Your task to perform on an android device: Search for sushi restaurants on Maps Image 0: 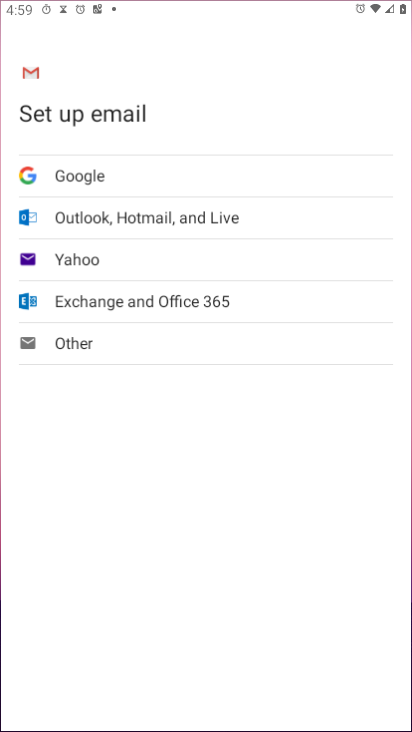
Step 0: press home button
Your task to perform on an android device: Search for sushi restaurants on Maps Image 1: 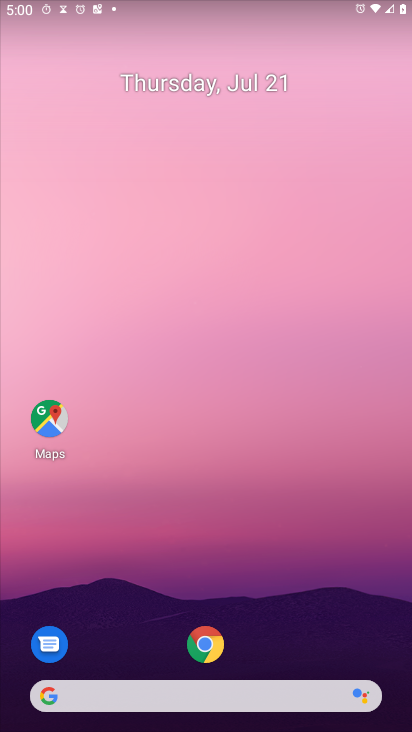
Step 1: click (36, 418)
Your task to perform on an android device: Search for sushi restaurants on Maps Image 2: 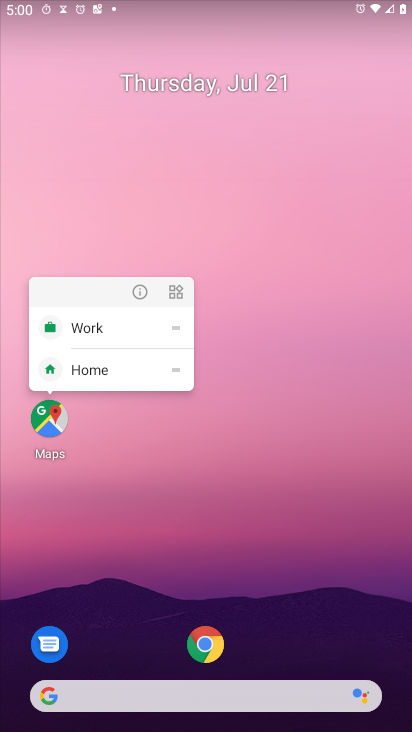
Step 2: click (41, 415)
Your task to perform on an android device: Search for sushi restaurants on Maps Image 3: 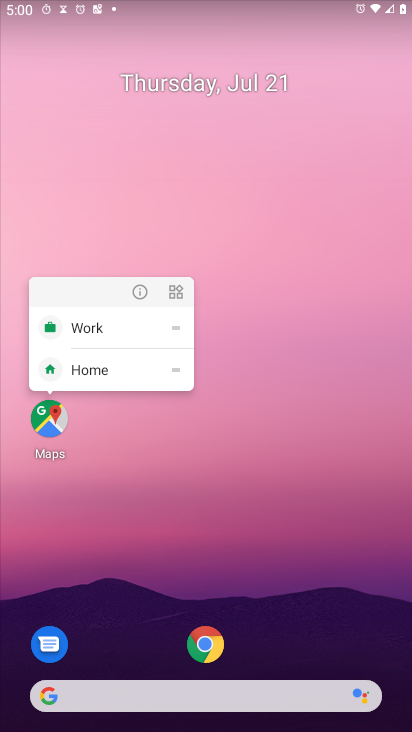
Step 3: click (44, 417)
Your task to perform on an android device: Search for sushi restaurants on Maps Image 4: 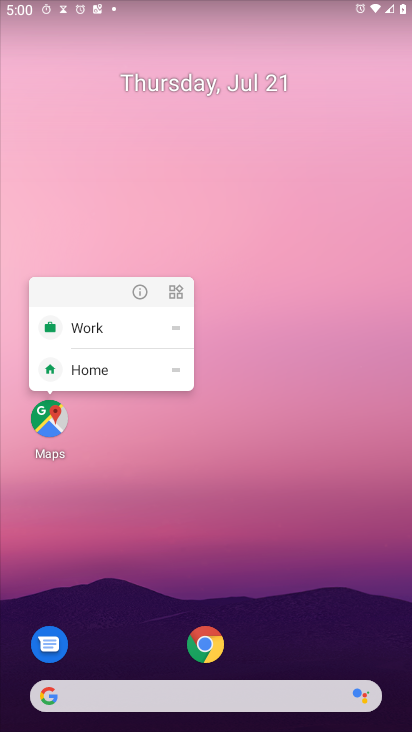
Step 4: click (44, 421)
Your task to perform on an android device: Search for sushi restaurants on Maps Image 5: 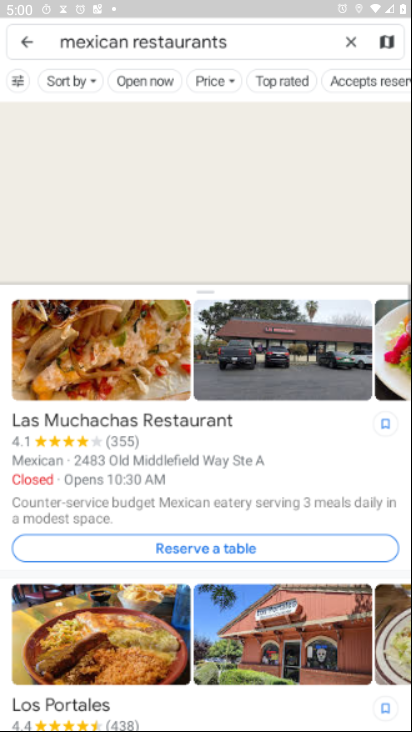
Step 5: click (22, 42)
Your task to perform on an android device: Search for sushi restaurants on Maps Image 6: 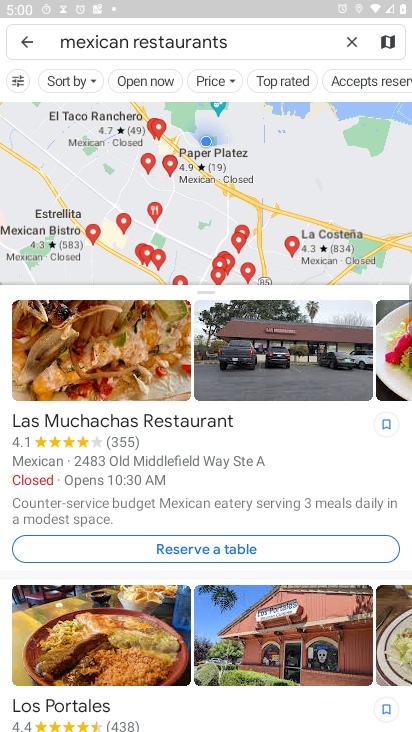
Step 6: click (23, 39)
Your task to perform on an android device: Search for sushi restaurants on Maps Image 7: 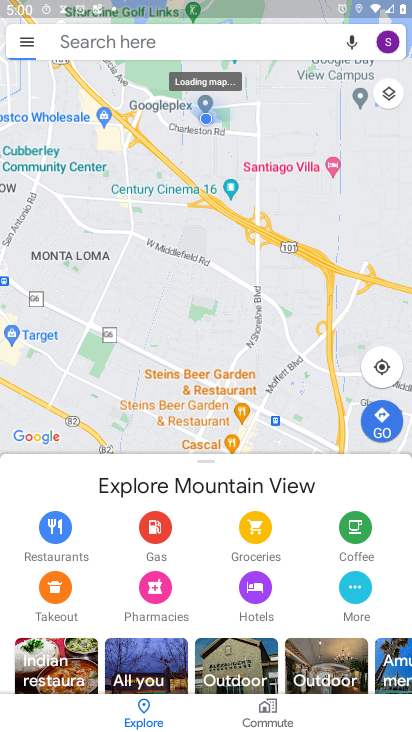
Step 7: type "sushi restaurants"
Your task to perform on an android device: Search for sushi restaurants on Maps Image 8: 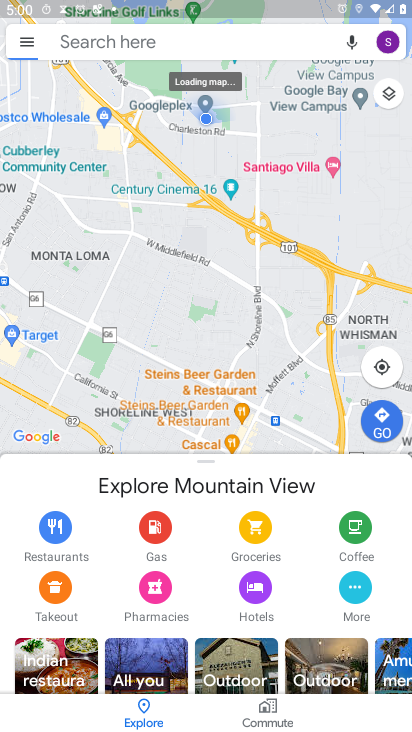
Step 8: click (170, 38)
Your task to perform on an android device: Search for sushi restaurants on Maps Image 9: 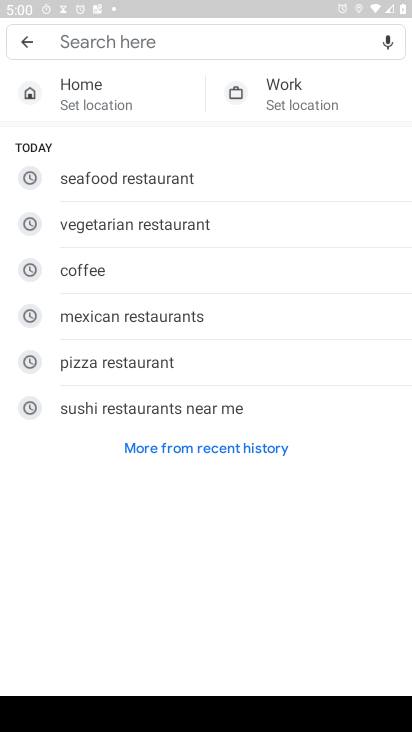
Step 9: click (75, 39)
Your task to perform on an android device: Search for sushi restaurants on Maps Image 10: 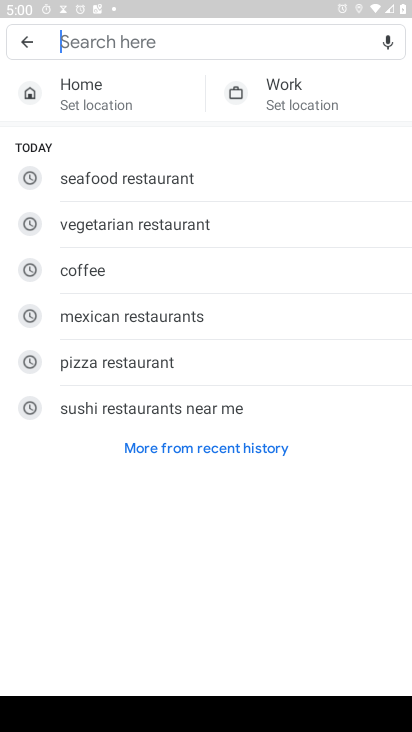
Step 10: type "sushi restaurants"
Your task to perform on an android device: Search for sushi restaurants on Maps Image 11: 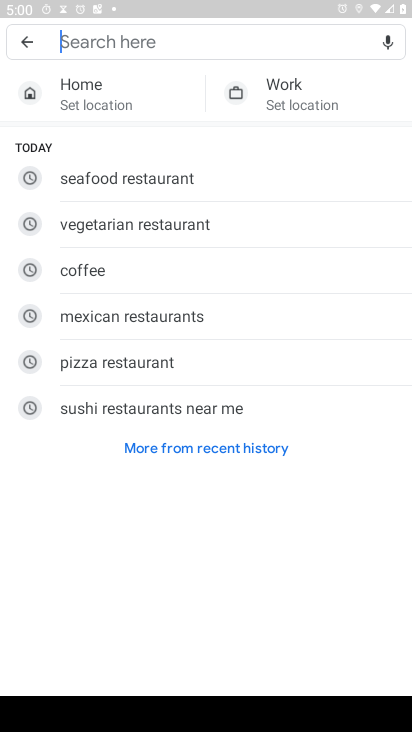
Step 11: click (130, 36)
Your task to perform on an android device: Search for sushi restaurants on Maps Image 12: 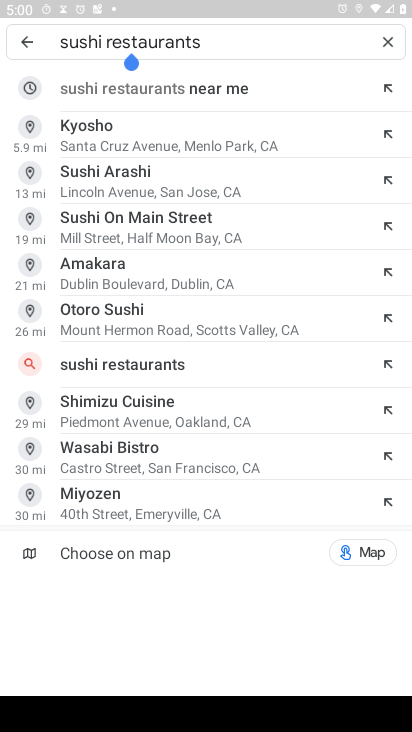
Step 12: press enter
Your task to perform on an android device: Search for sushi restaurants on Maps Image 13: 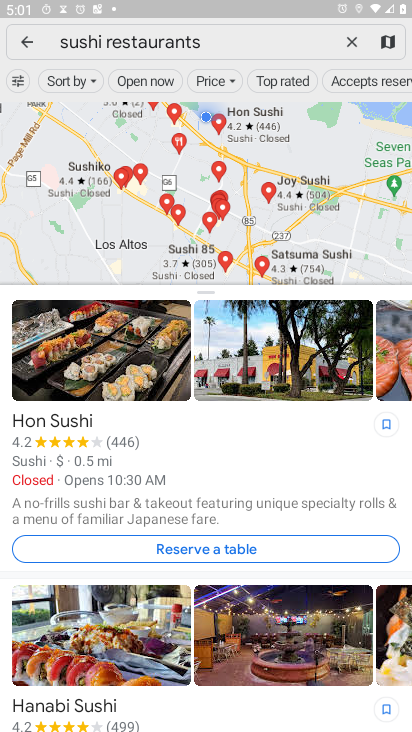
Step 13: task complete